Your task to perform on an android device: Open the web browser Image 0: 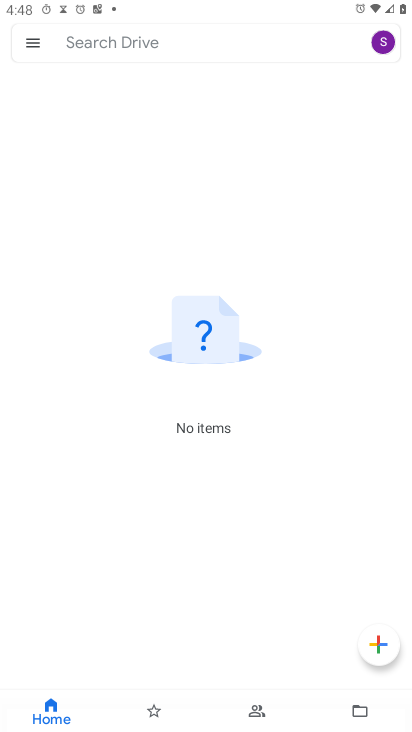
Step 0: press home button
Your task to perform on an android device: Open the web browser Image 1: 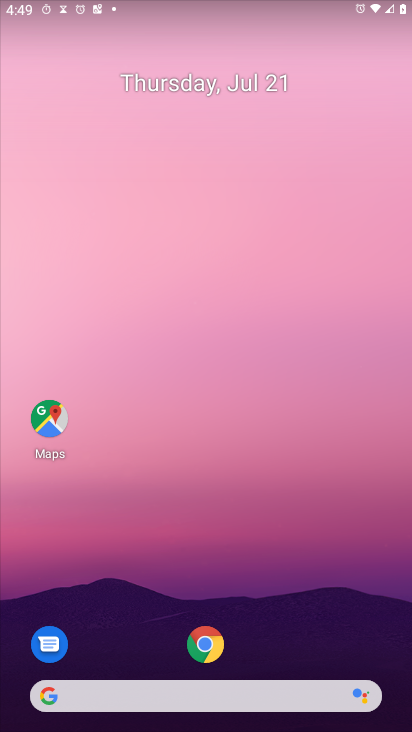
Step 1: click (43, 702)
Your task to perform on an android device: Open the web browser Image 2: 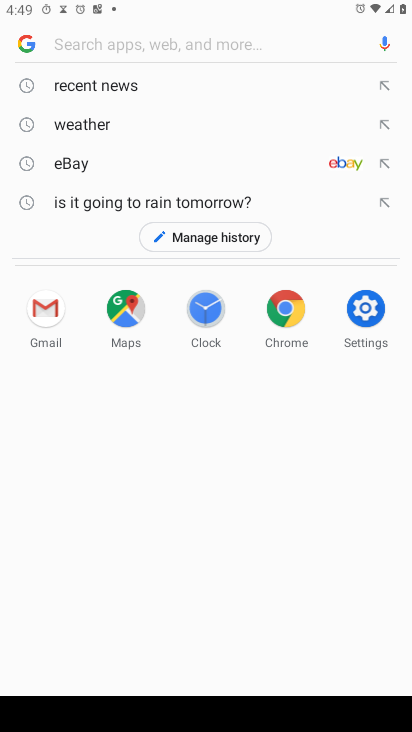
Step 2: task complete